Your task to perform on an android device: turn notification dots off Image 0: 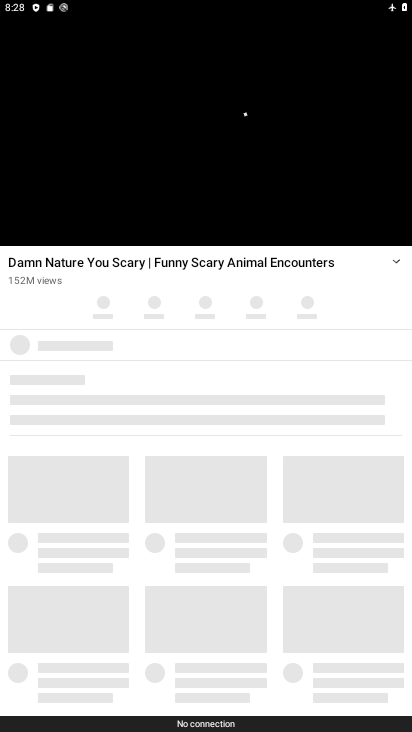
Step 0: press home button
Your task to perform on an android device: turn notification dots off Image 1: 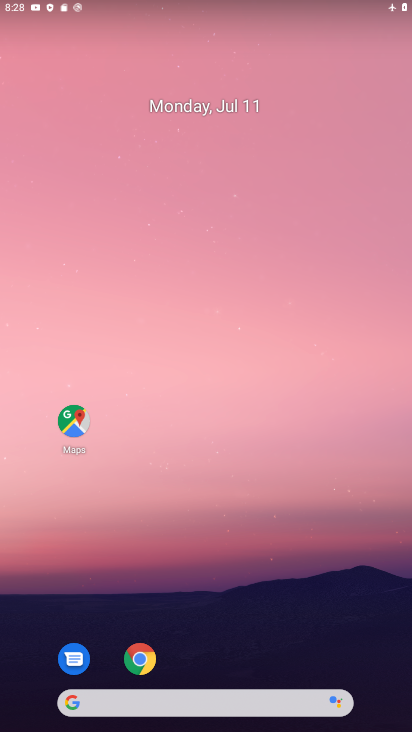
Step 1: drag from (230, 668) to (207, 87)
Your task to perform on an android device: turn notification dots off Image 2: 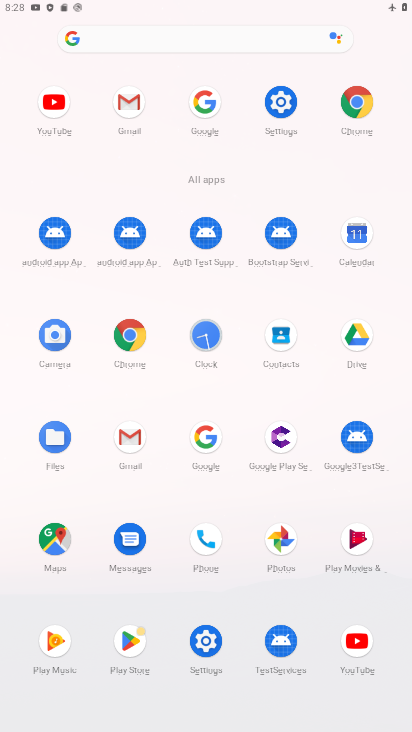
Step 2: click (267, 121)
Your task to perform on an android device: turn notification dots off Image 3: 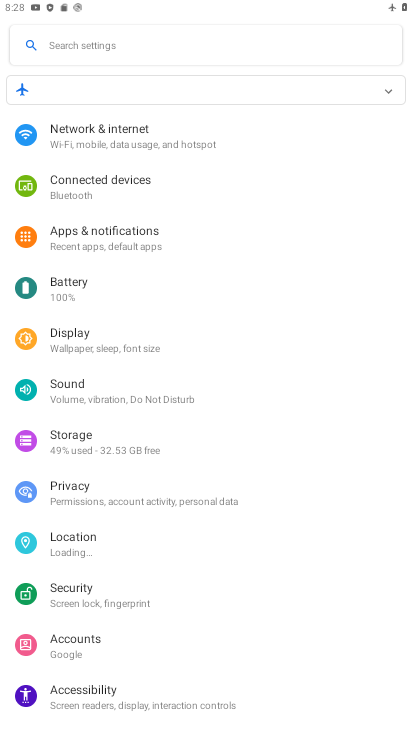
Step 3: click (179, 251)
Your task to perform on an android device: turn notification dots off Image 4: 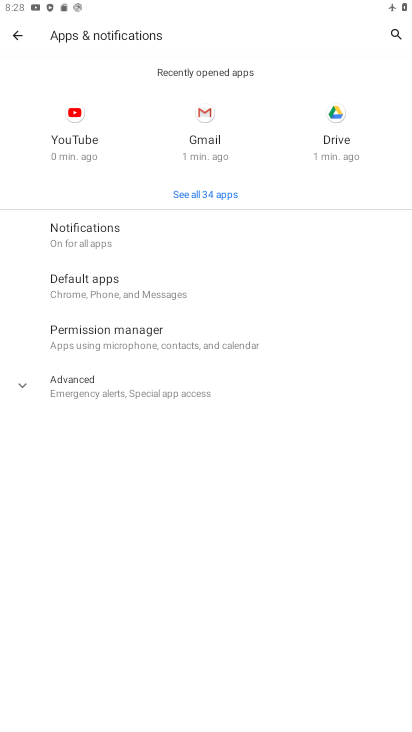
Step 4: click (158, 236)
Your task to perform on an android device: turn notification dots off Image 5: 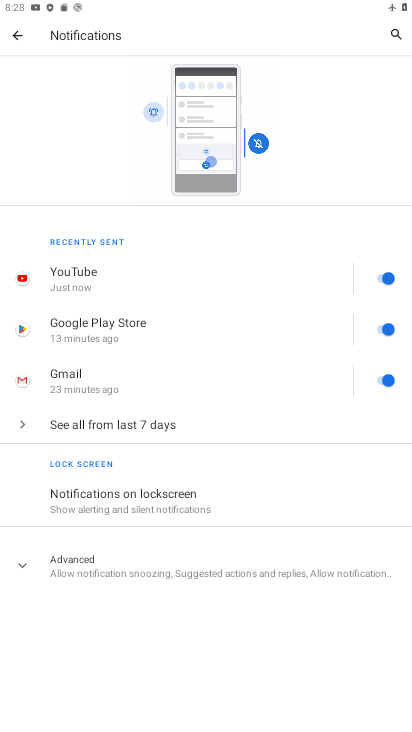
Step 5: click (183, 570)
Your task to perform on an android device: turn notification dots off Image 6: 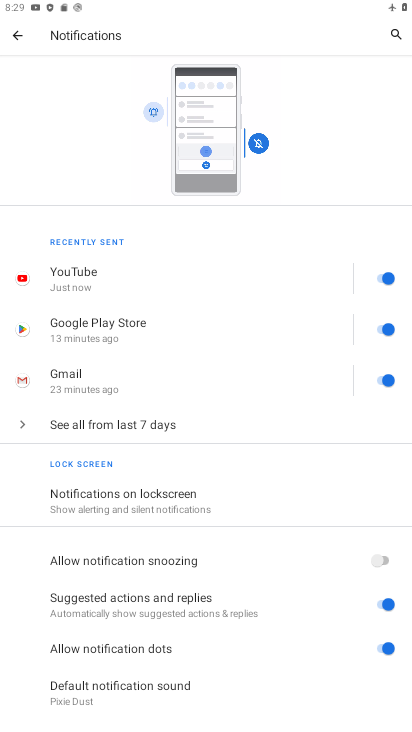
Step 6: click (379, 646)
Your task to perform on an android device: turn notification dots off Image 7: 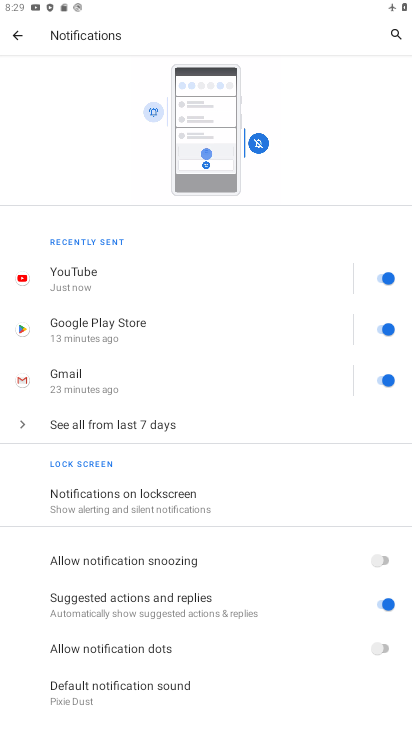
Step 7: task complete